Your task to perform on an android device: change text size in settings app Image 0: 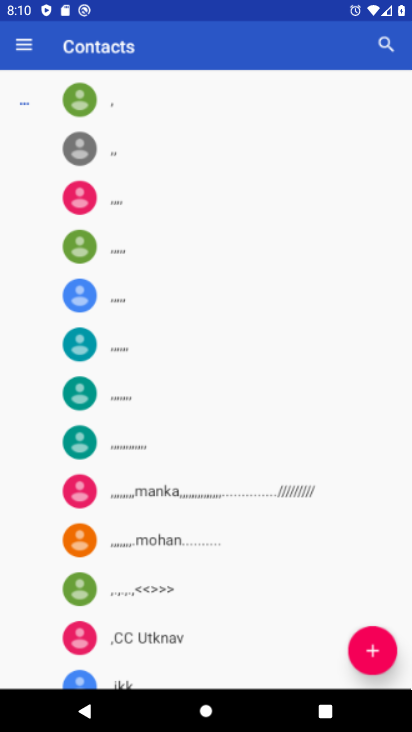
Step 0: drag from (352, 689) to (167, 236)
Your task to perform on an android device: change text size in settings app Image 1: 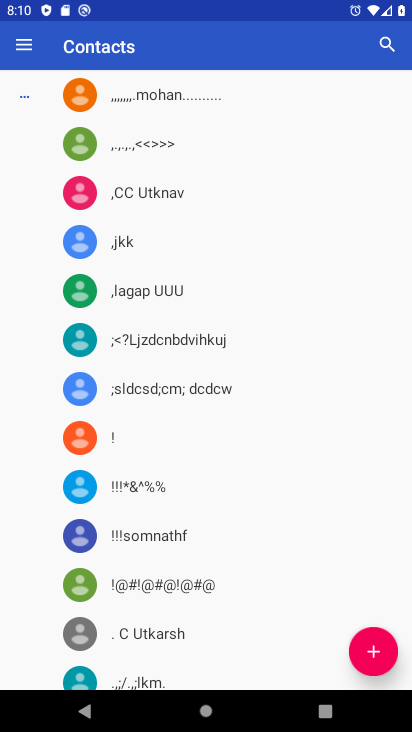
Step 1: press home button
Your task to perform on an android device: change text size in settings app Image 2: 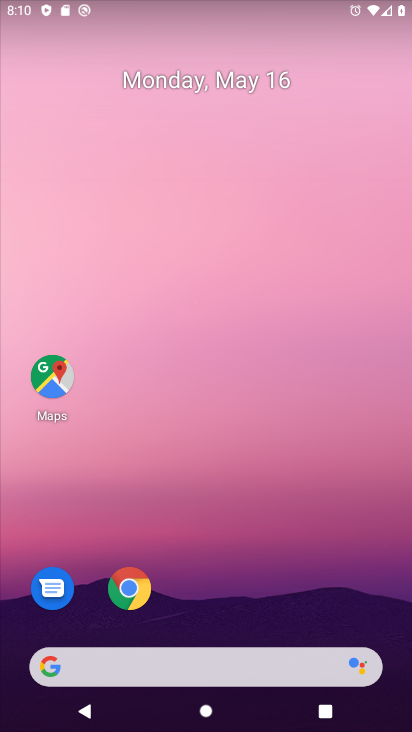
Step 2: drag from (312, 429) to (258, 63)
Your task to perform on an android device: change text size in settings app Image 3: 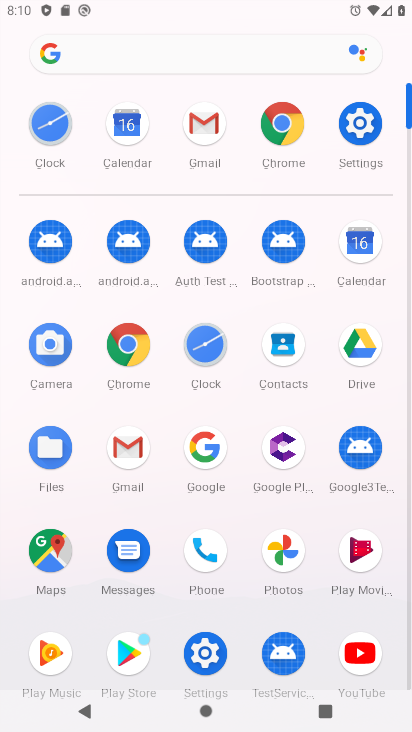
Step 3: drag from (224, 471) to (250, 6)
Your task to perform on an android device: change text size in settings app Image 4: 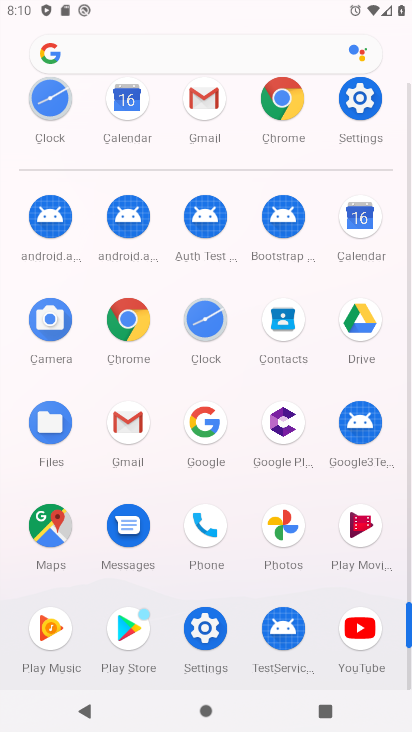
Step 4: click (209, 624)
Your task to perform on an android device: change text size in settings app Image 5: 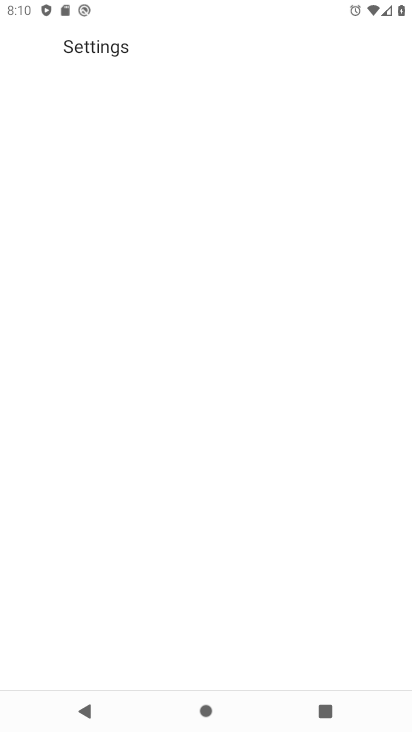
Step 5: click (207, 627)
Your task to perform on an android device: change text size in settings app Image 6: 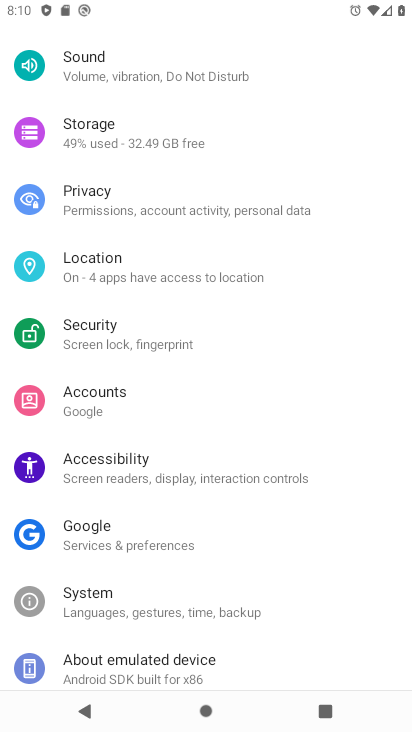
Step 6: click (207, 627)
Your task to perform on an android device: change text size in settings app Image 7: 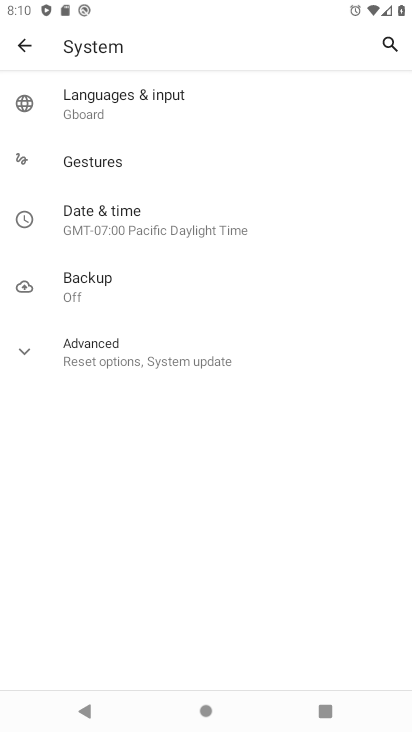
Step 7: click (22, 44)
Your task to perform on an android device: change text size in settings app Image 8: 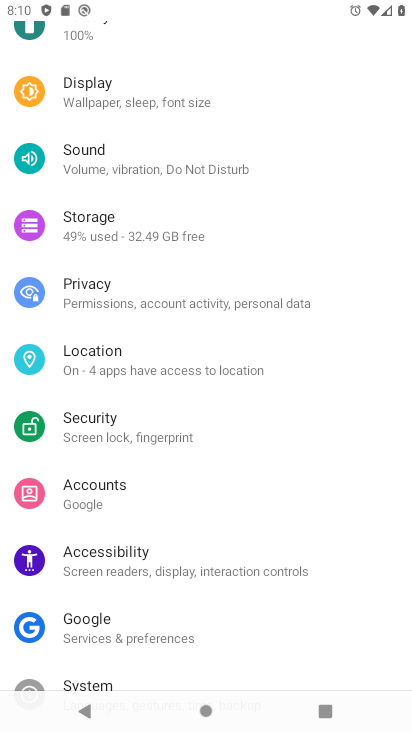
Step 8: click (99, 94)
Your task to perform on an android device: change text size in settings app Image 9: 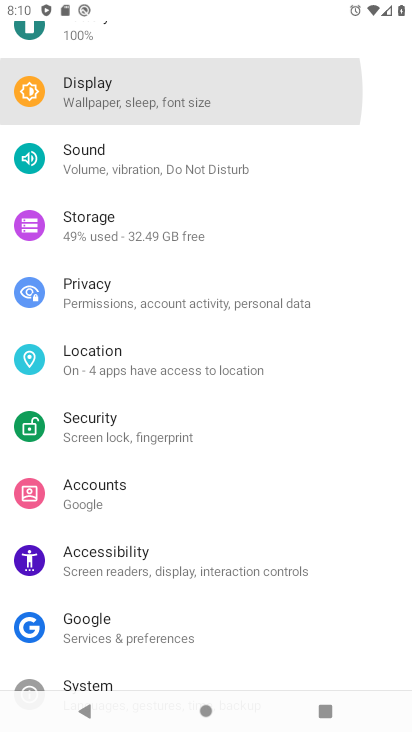
Step 9: click (99, 94)
Your task to perform on an android device: change text size in settings app Image 10: 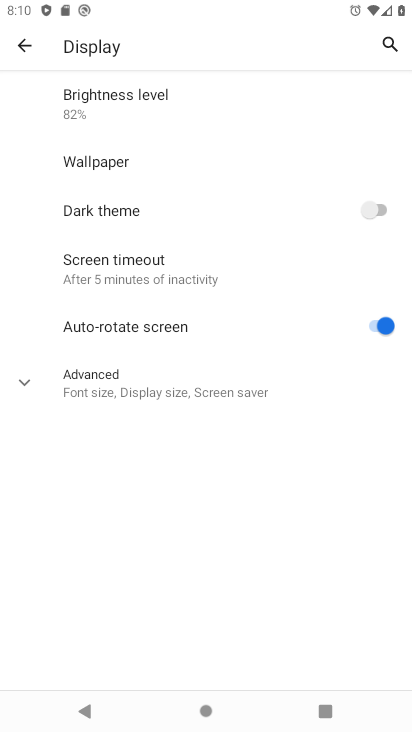
Step 10: click (139, 387)
Your task to perform on an android device: change text size in settings app Image 11: 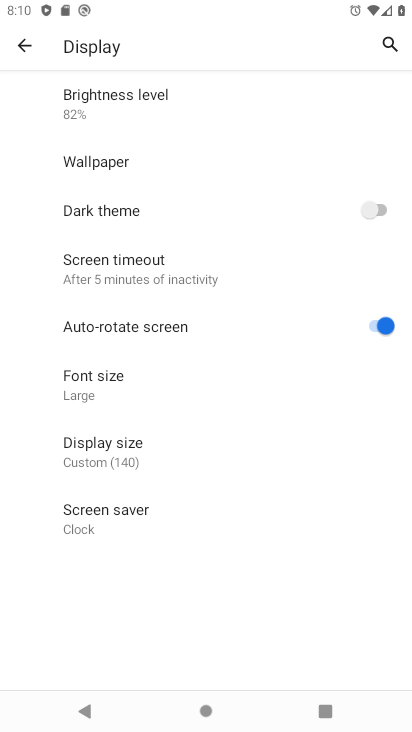
Step 11: click (117, 385)
Your task to perform on an android device: change text size in settings app Image 12: 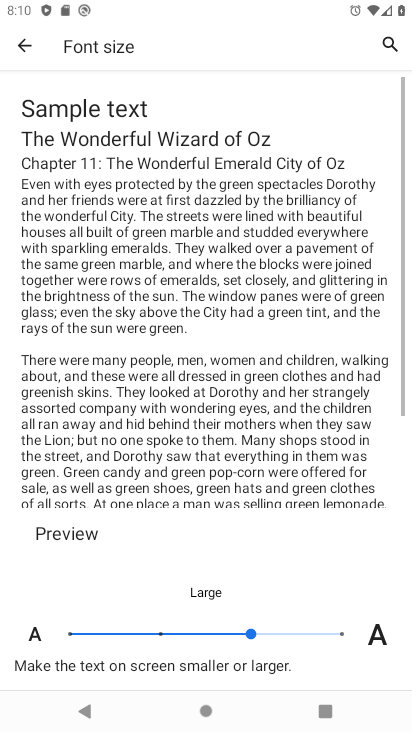
Step 12: click (85, 387)
Your task to perform on an android device: change text size in settings app Image 13: 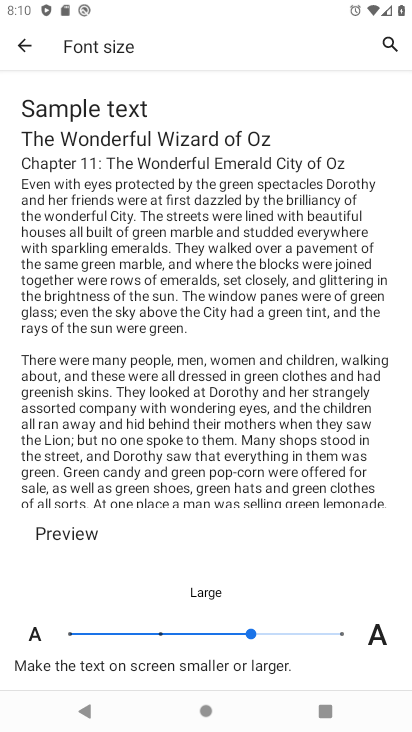
Step 13: click (167, 630)
Your task to perform on an android device: change text size in settings app Image 14: 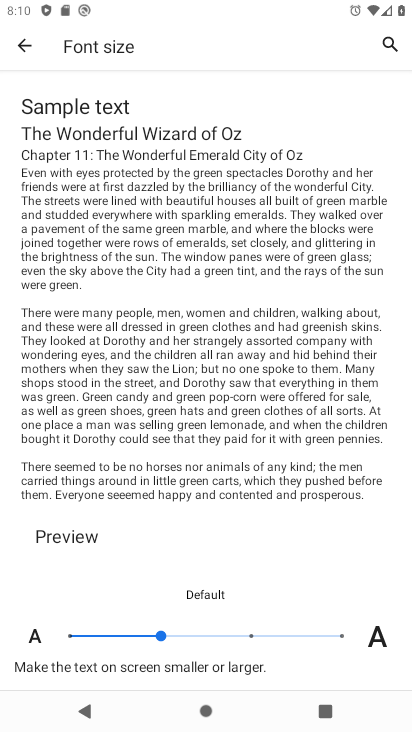
Step 14: task complete